Your task to perform on an android device: Open privacy settings Image 0: 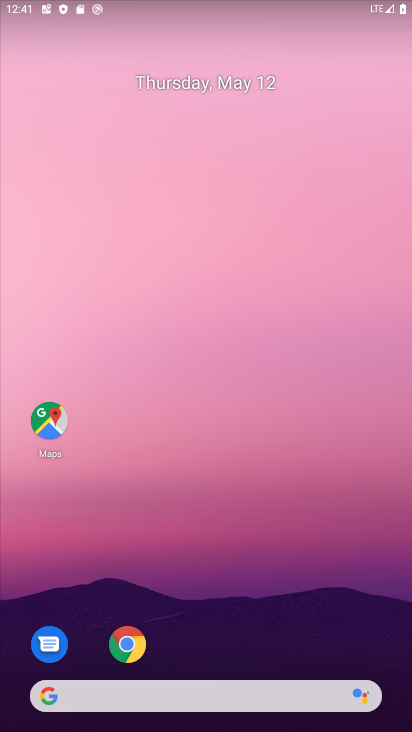
Step 0: drag from (239, 576) to (202, 175)
Your task to perform on an android device: Open privacy settings Image 1: 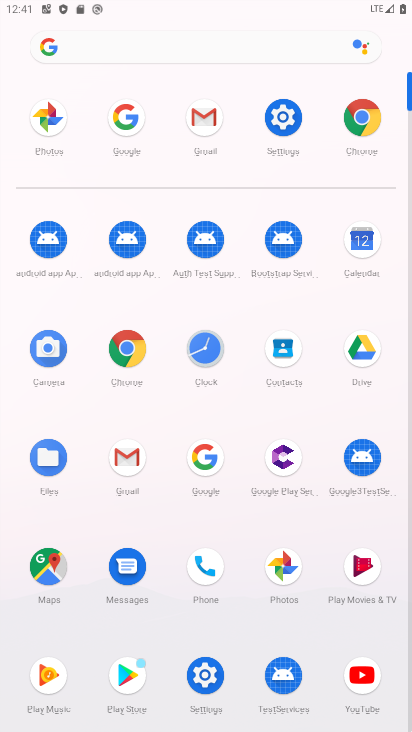
Step 1: click (282, 122)
Your task to perform on an android device: Open privacy settings Image 2: 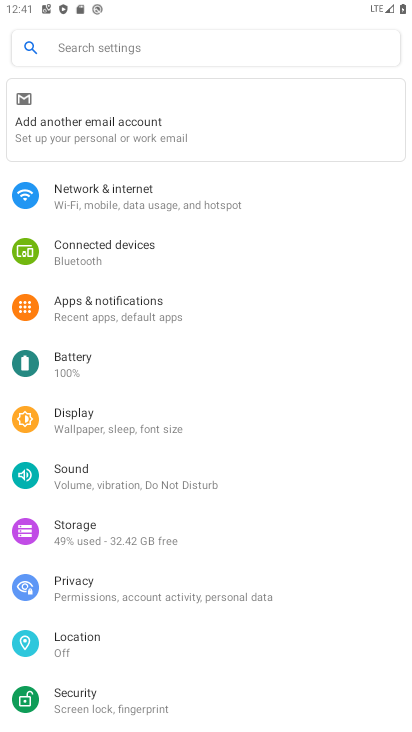
Step 2: click (109, 581)
Your task to perform on an android device: Open privacy settings Image 3: 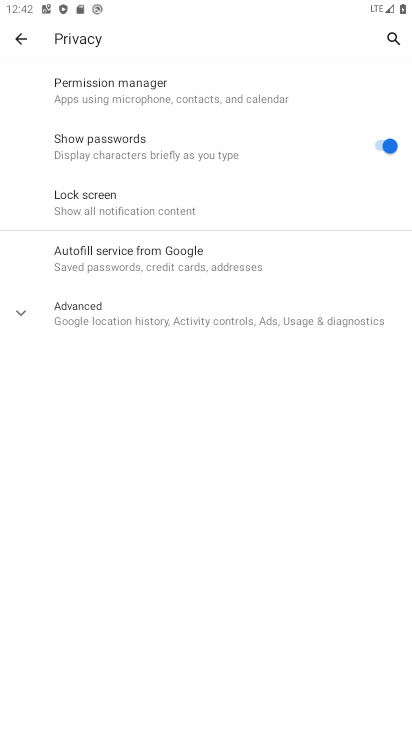
Step 3: task complete